Your task to perform on an android device: How much does a 2 bedroom apartment rent for in Washington DC? Image 0: 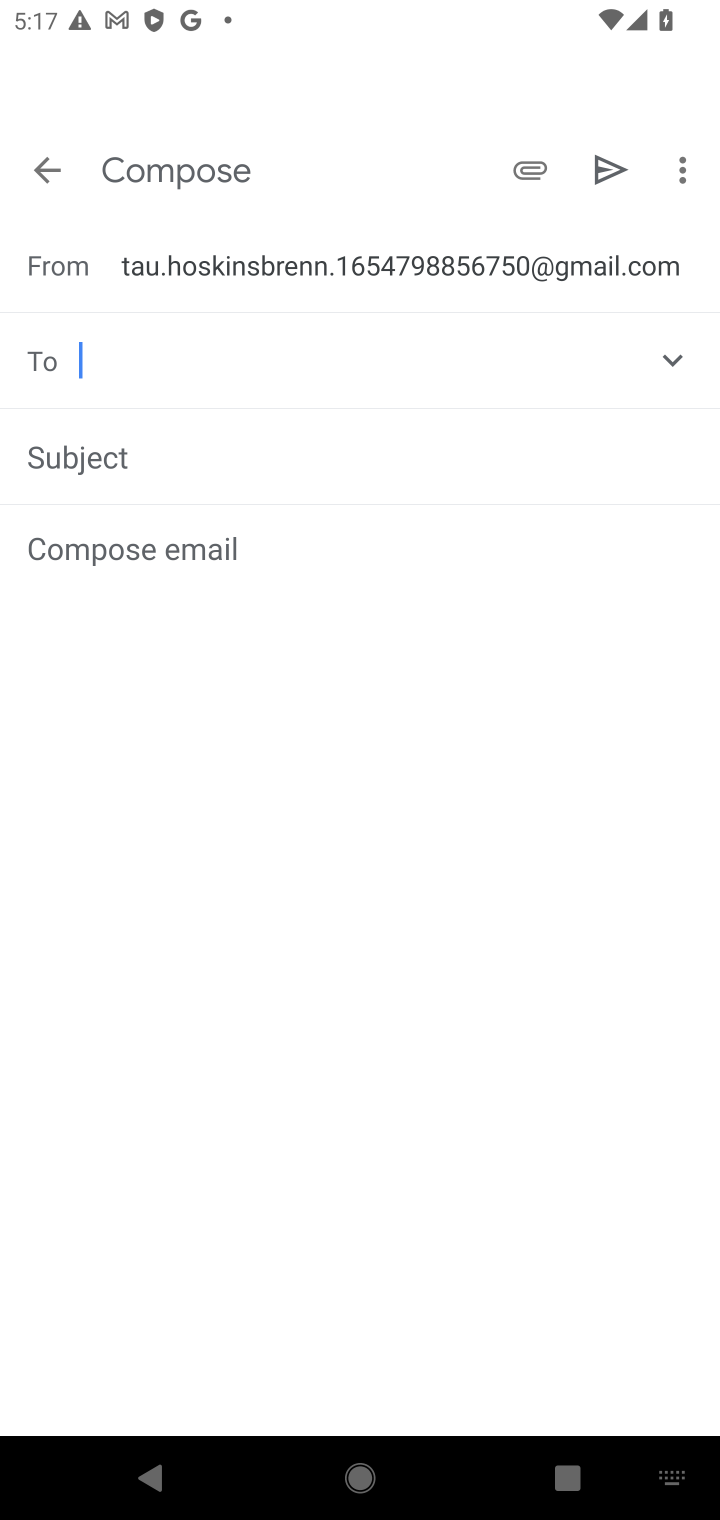
Step 0: press home button
Your task to perform on an android device: How much does a 2 bedroom apartment rent for in Washington DC? Image 1: 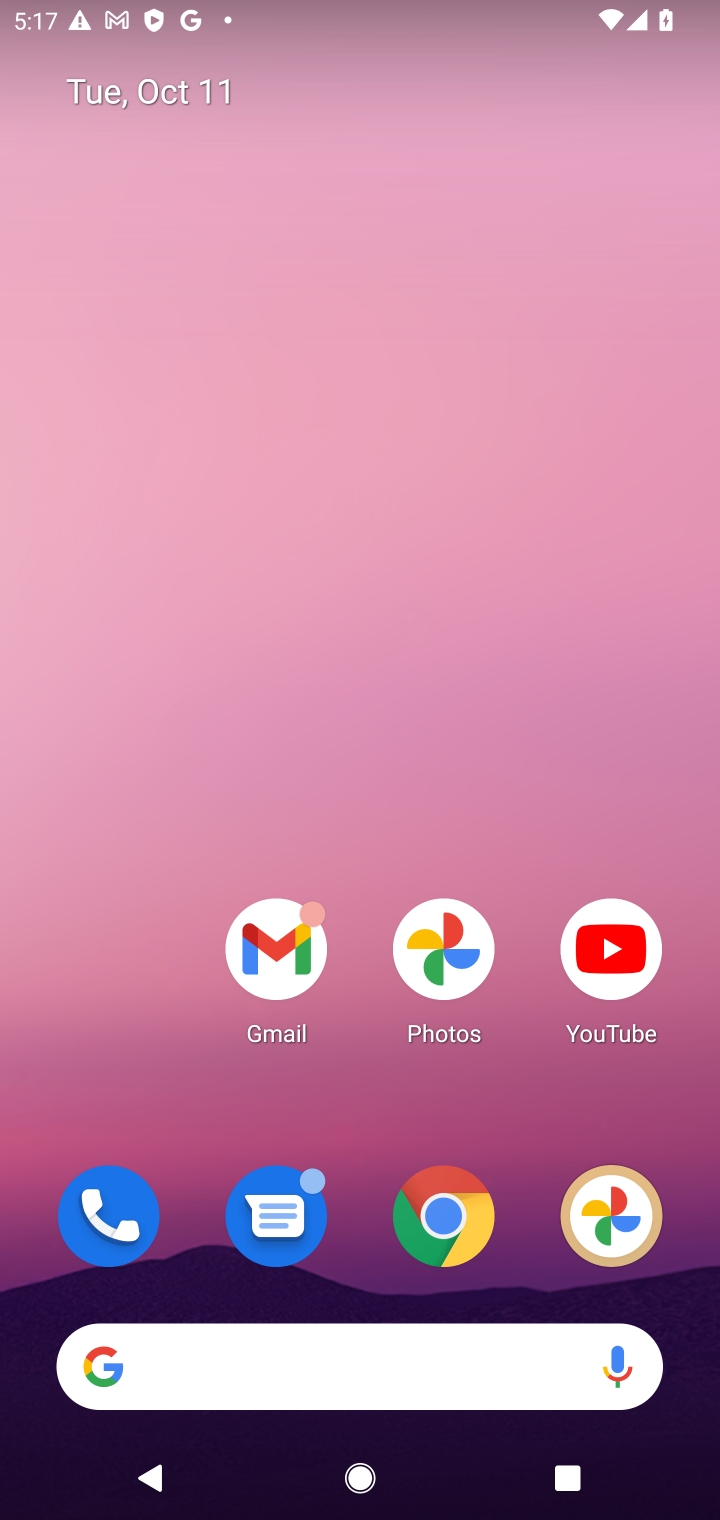
Step 1: click (427, 1198)
Your task to perform on an android device: How much does a 2 bedroom apartment rent for in Washington DC? Image 2: 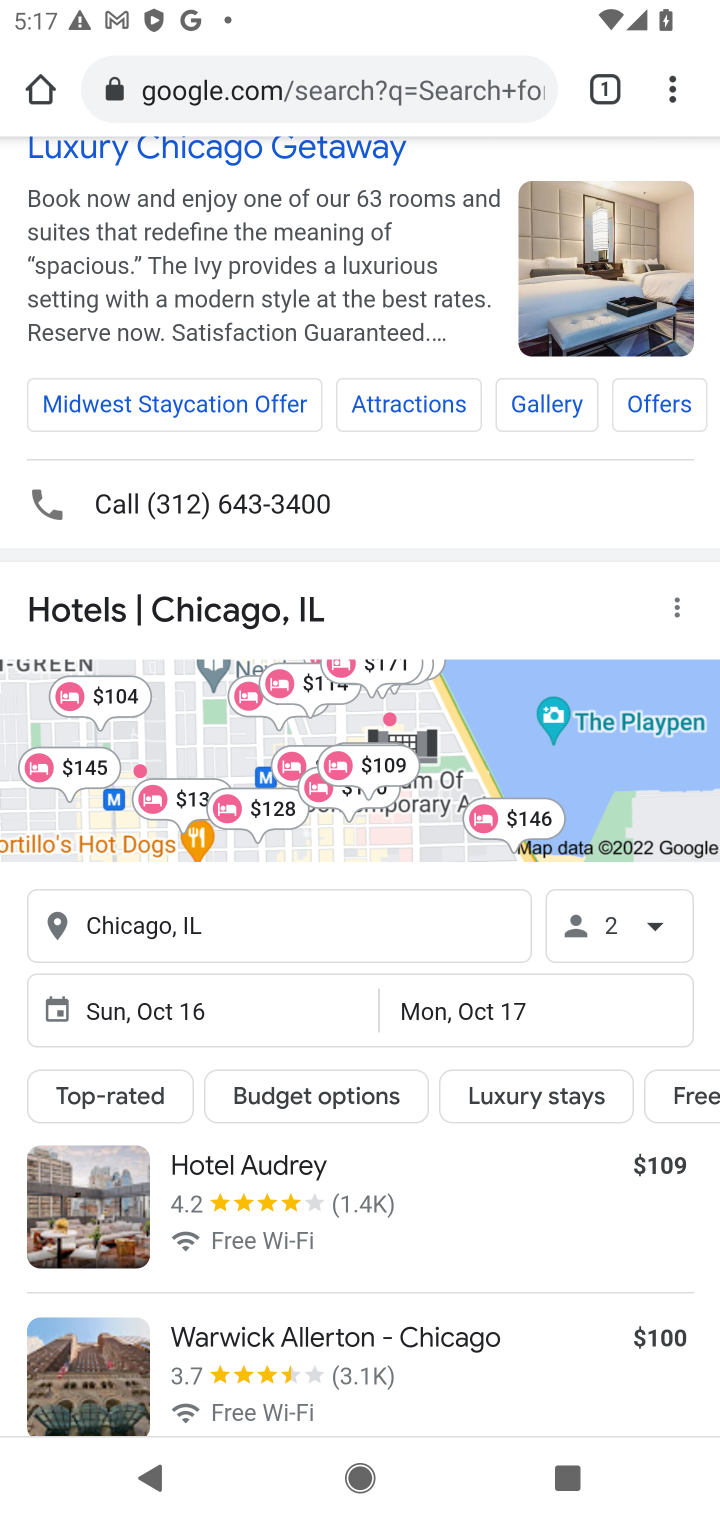
Step 2: drag from (297, 267) to (307, 705)
Your task to perform on an android device: How much does a 2 bedroom apartment rent for in Washington DC? Image 3: 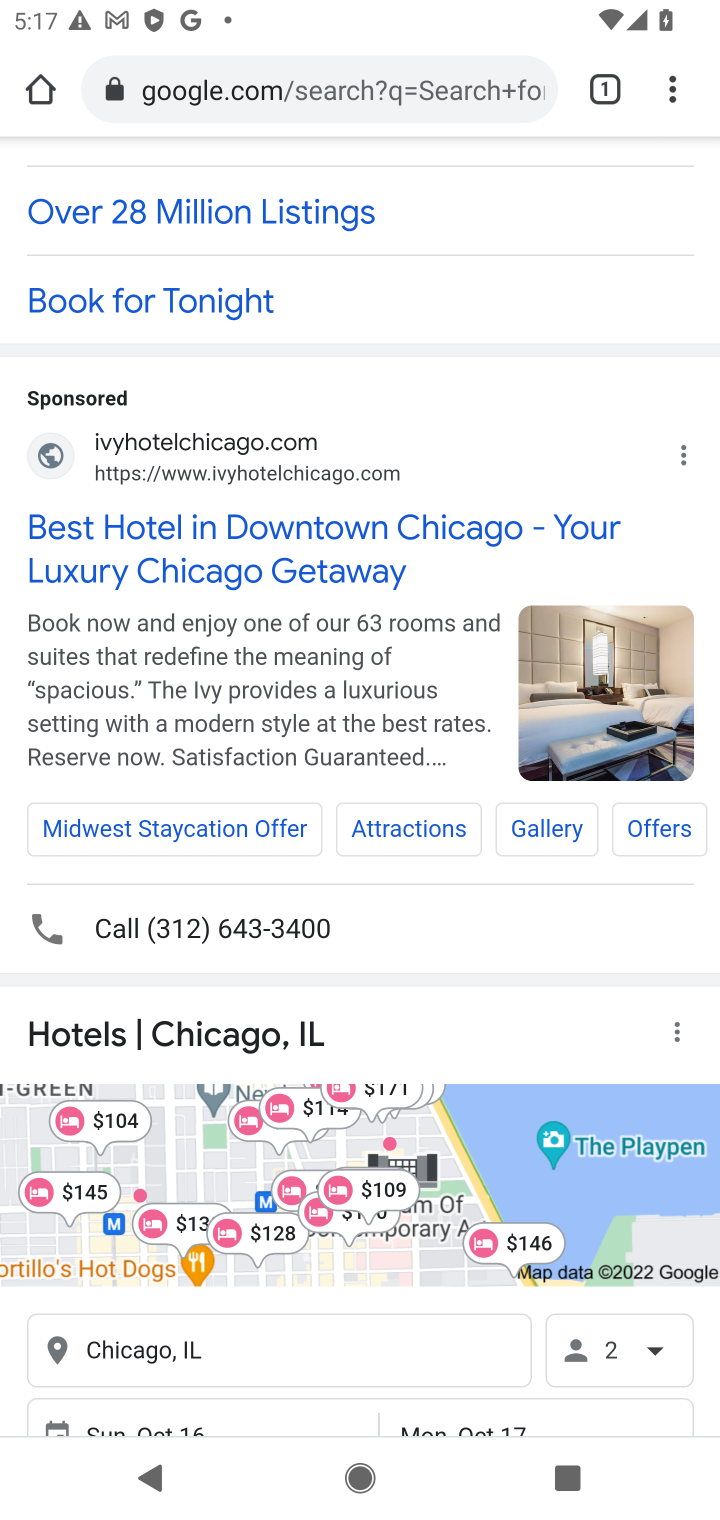
Step 3: click (395, 82)
Your task to perform on an android device: How much does a 2 bedroom apartment rent for in Washington DC? Image 4: 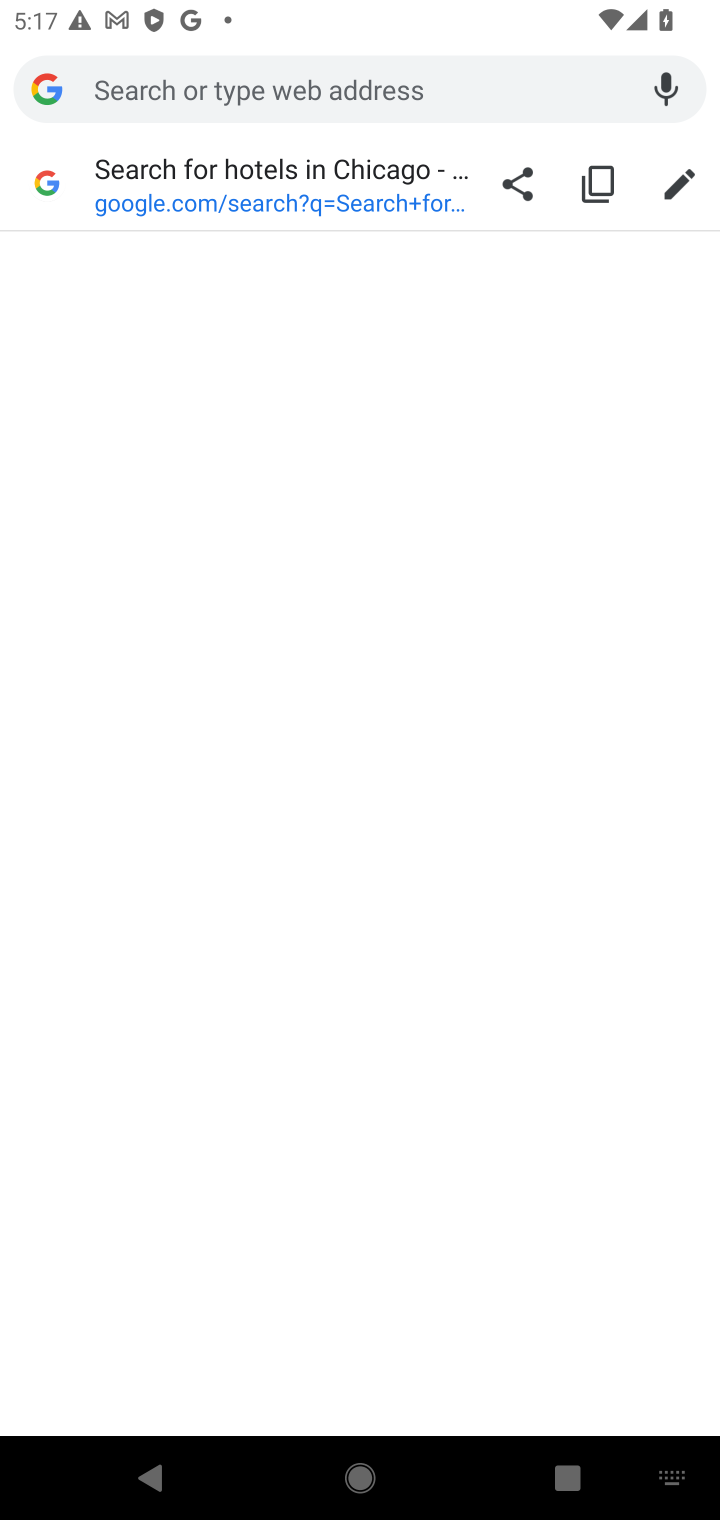
Step 4: type "How much does a 2 bedroom apartment rent for in Washington DC?"
Your task to perform on an android device: How much does a 2 bedroom apartment rent for in Washington DC? Image 5: 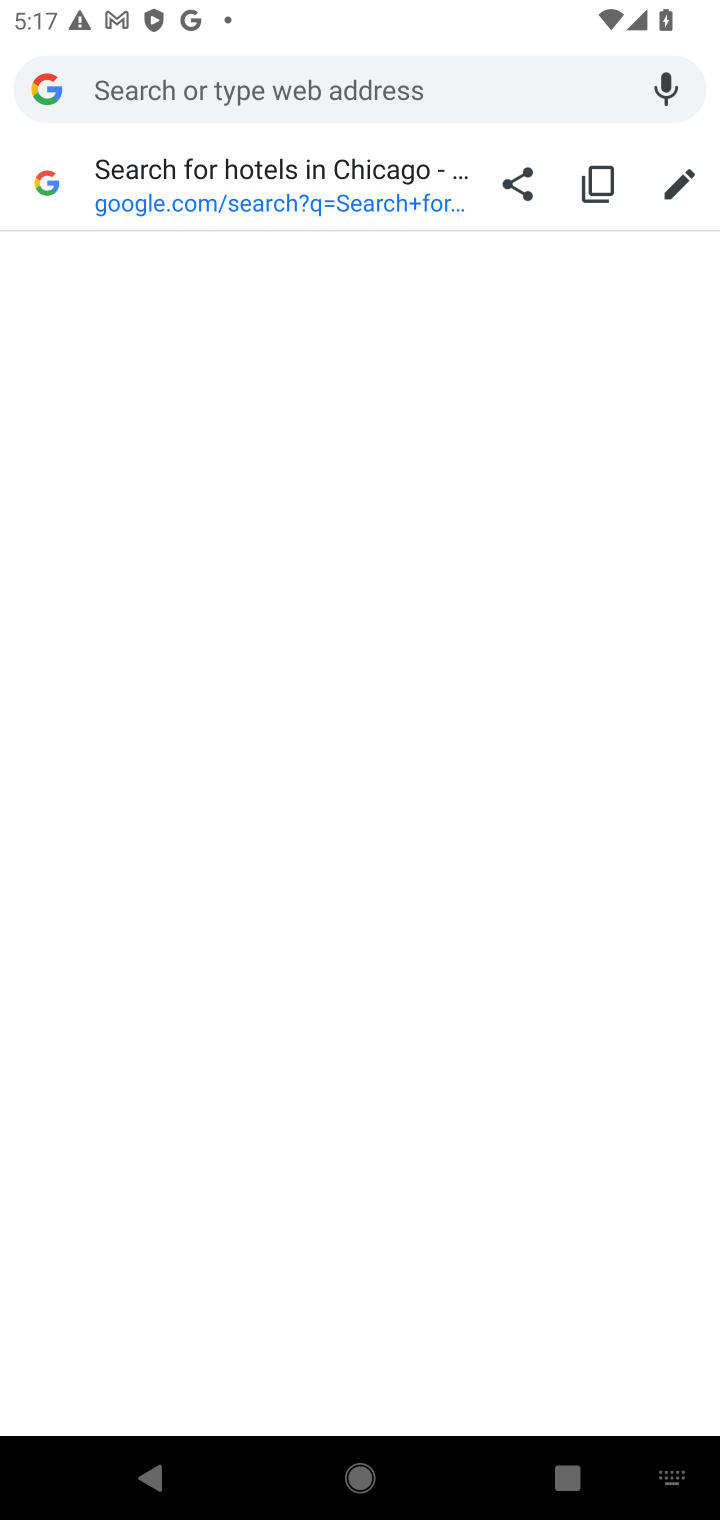
Step 5: click (474, 81)
Your task to perform on an android device: How much does a 2 bedroom apartment rent for in Washington DC? Image 6: 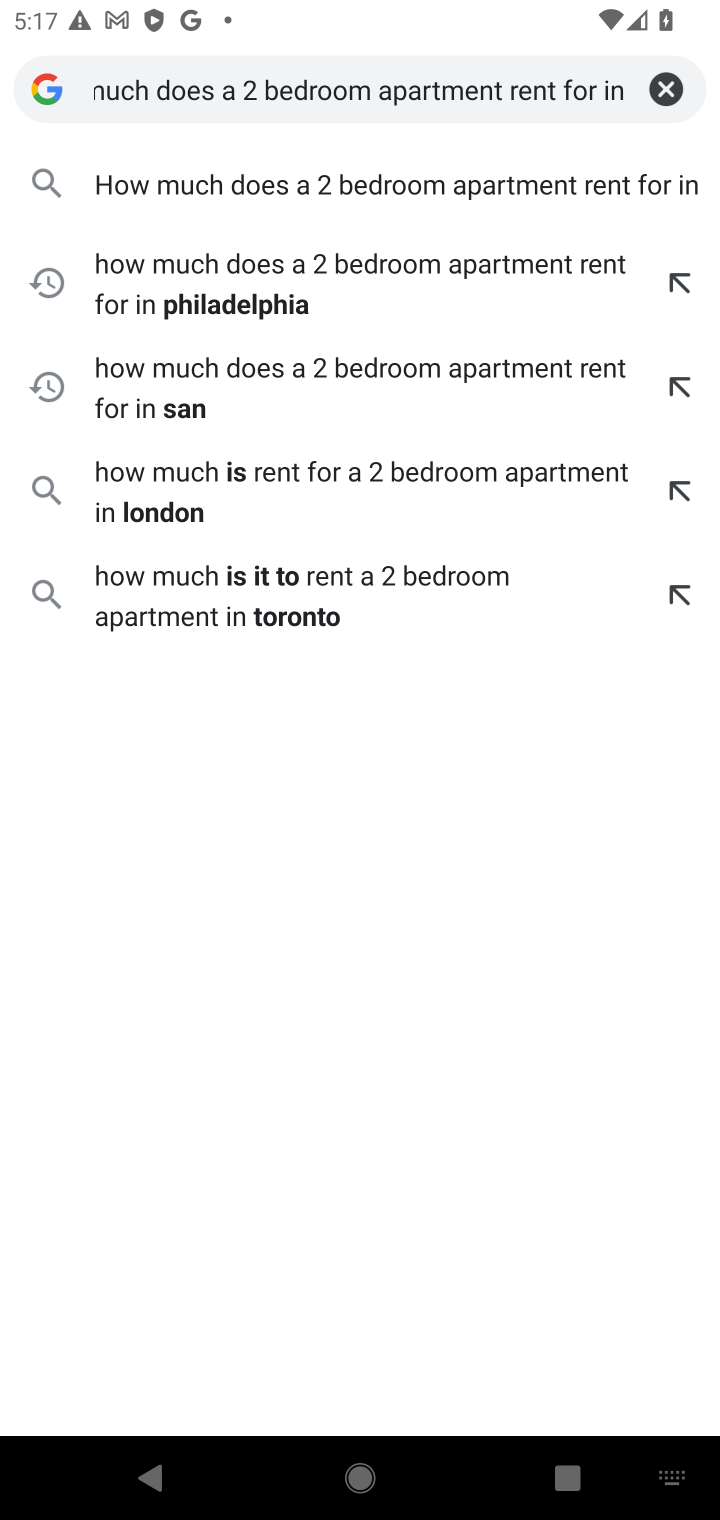
Step 6: press enter
Your task to perform on an android device: How much does a 2 bedroom apartment rent for in Washington DC? Image 7: 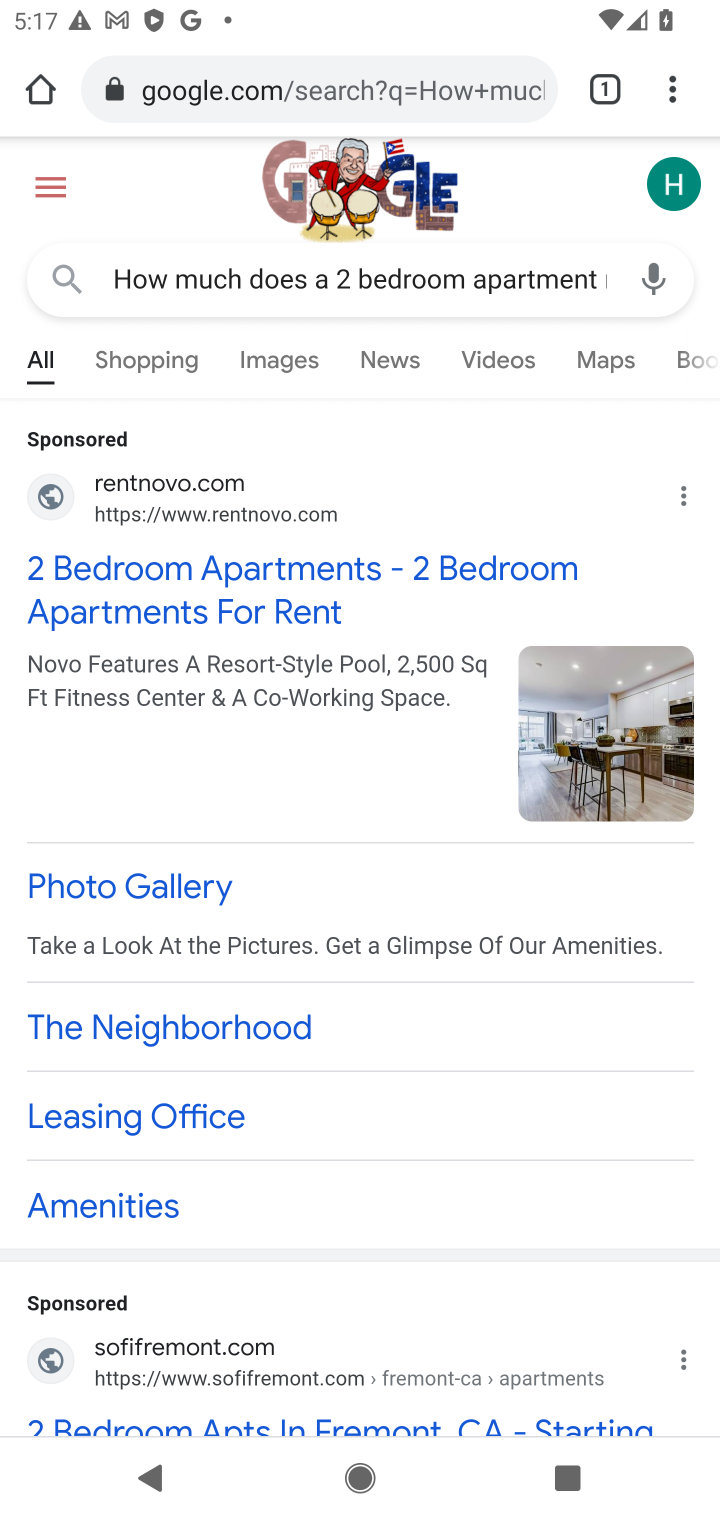
Step 7: click (193, 595)
Your task to perform on an android device: How much does a 2 bedroom apartment rent for in Washington DC? Image 8: 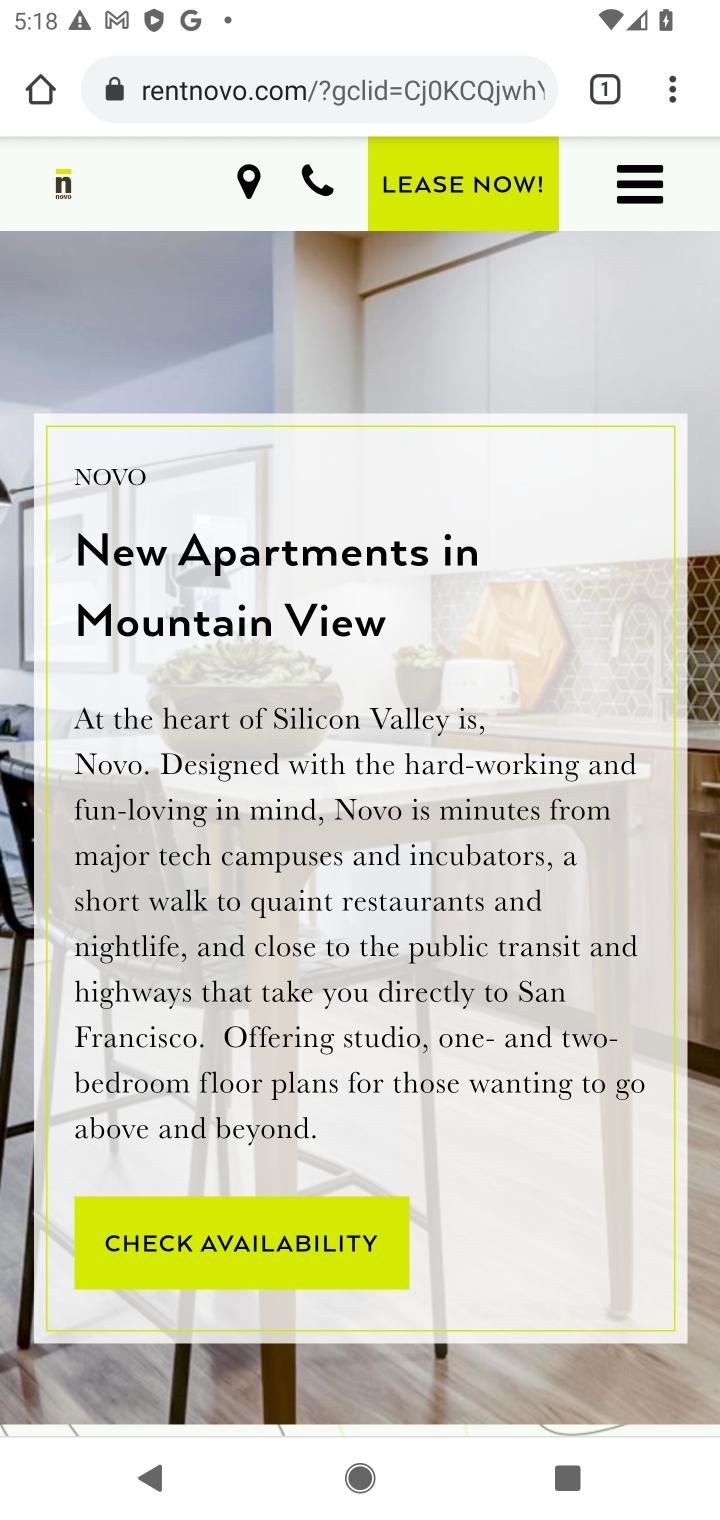
Step 8: task complete